Your task to perform on an android device: Open Google Image 0: 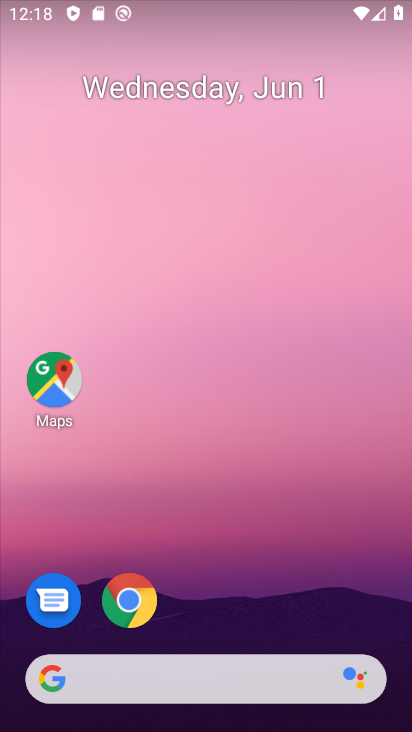
Step 0: press home button
Your task to perform on an android device: Open Google Image 1: 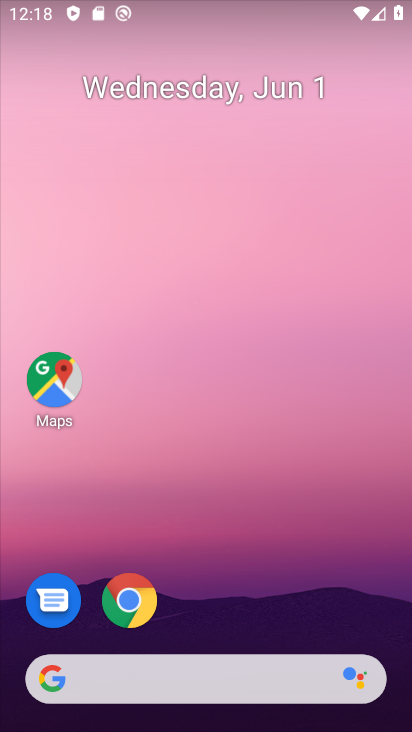
Step 1: drag from (221, 636) to (216, 210)
Your task to perform on an android device: Open Google Image 2: 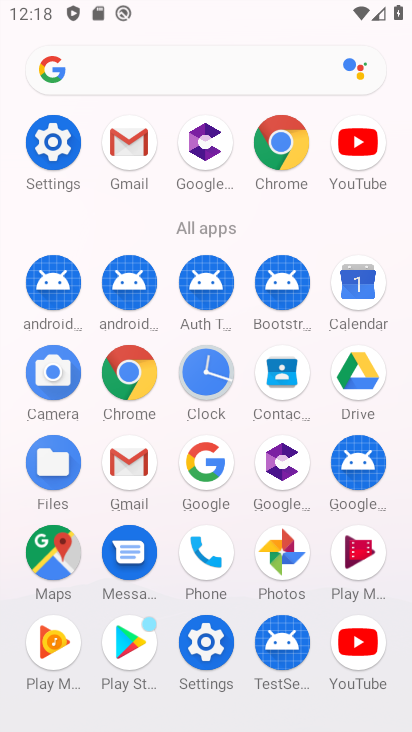
Step 2: click (208, 460)
Your task to perform on an android device: Open Google Image 3: 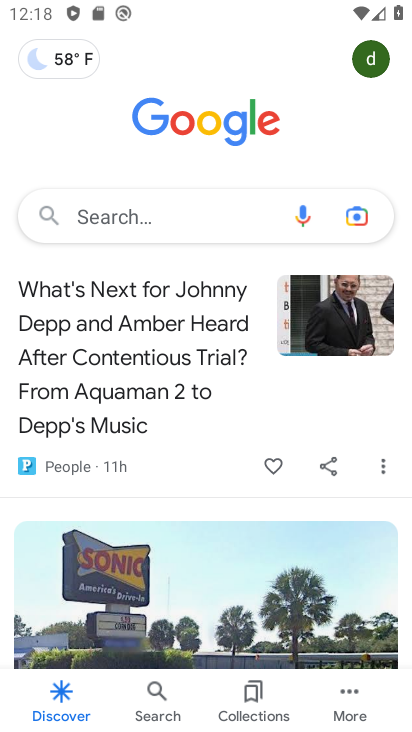
Step 3: task complete